Your task to perform on an android device: toggle wifi Image 0: 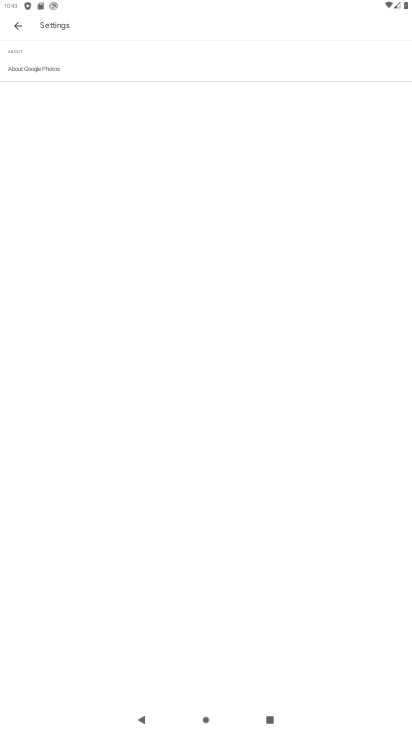
Step 0: press home button
Your task to perform on an android device: toggle wifi Image 1: 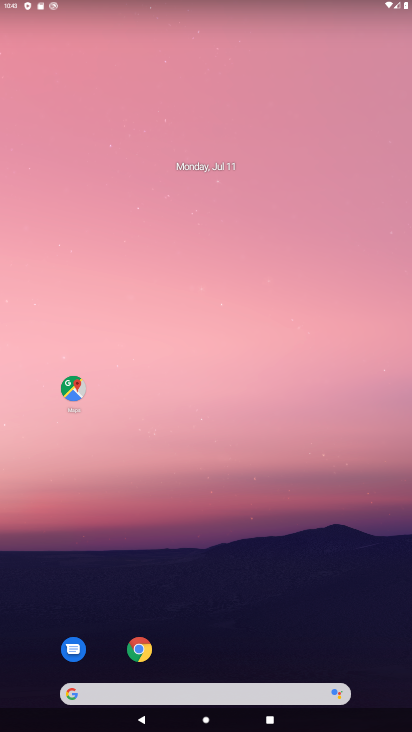
Step 1: drag from (285, 599) to (208, 113)
Your task to perform on an android device: toggle wifi Image 2: 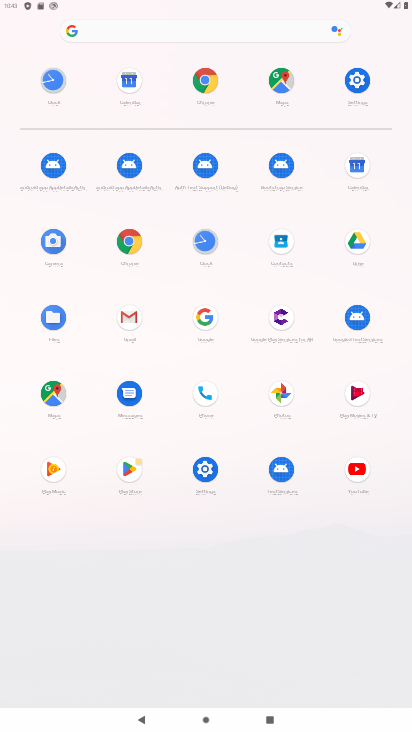
Step 2: click (359, 80)
Your task to perform on an android device: toggle wifi Image 3: 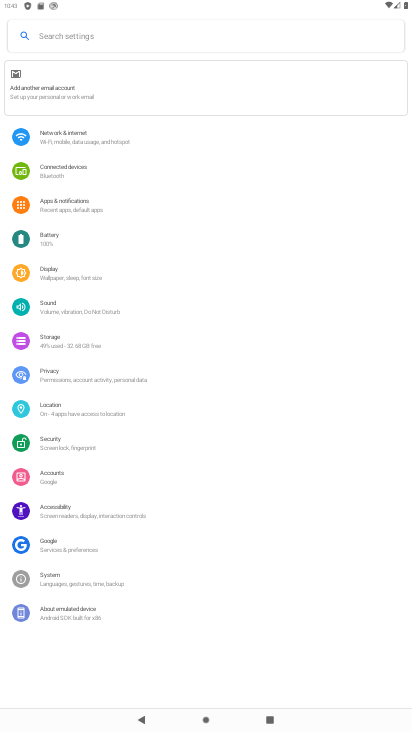
Step 3: click (53, 131)
Your task to perform on an android device: toggle wifi Image 4: 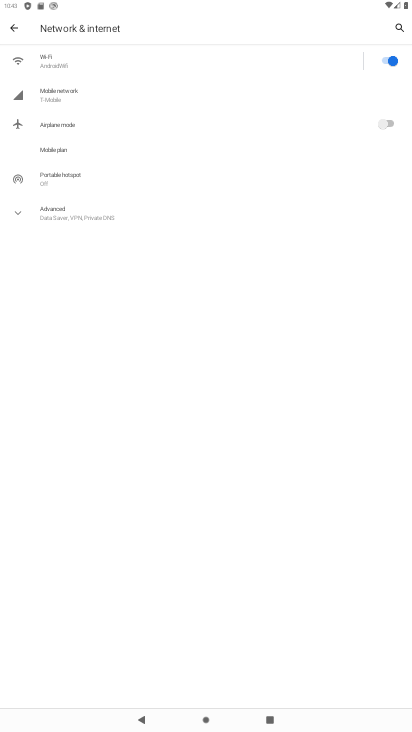
Step 4: click (394, 64)
Your task to perform on an android device: toggle wifi Image 5: 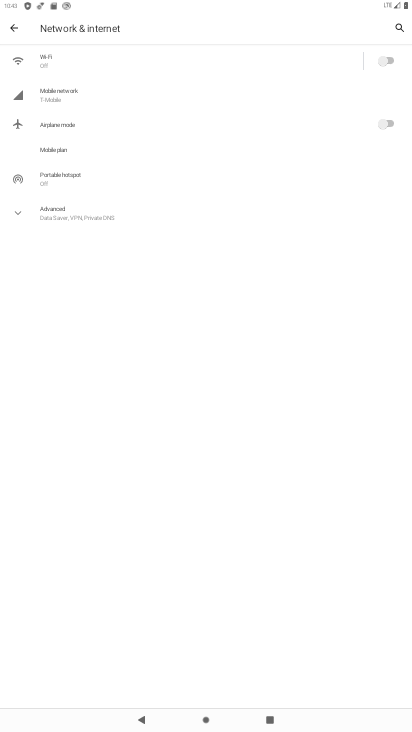
Step 5: task complete